Your task to perform on an android device: turn on notifications settings in the gmail app Image 0: 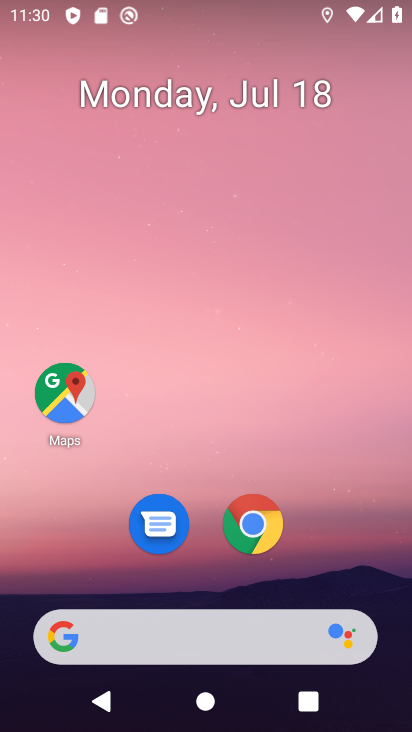
Step 0: drag from (323, 524) to (363, 52)
Your task to perform on an android device: turn on notifications settings in the gmail app Image 1: 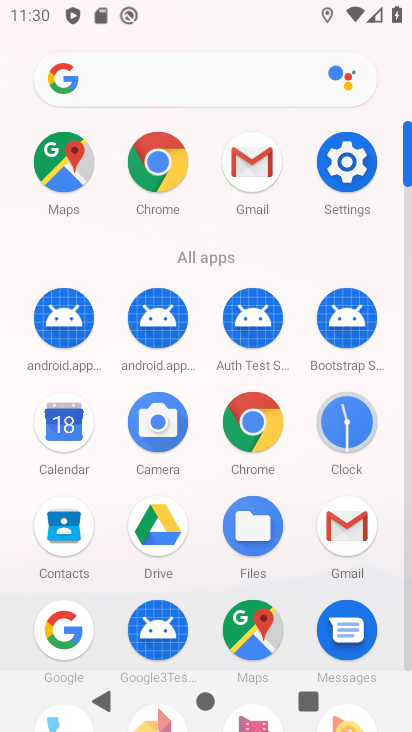
Step 1: click (342, 151)
Your task to perform on an android device: turn on notifications settings in the gmail app Image 2: 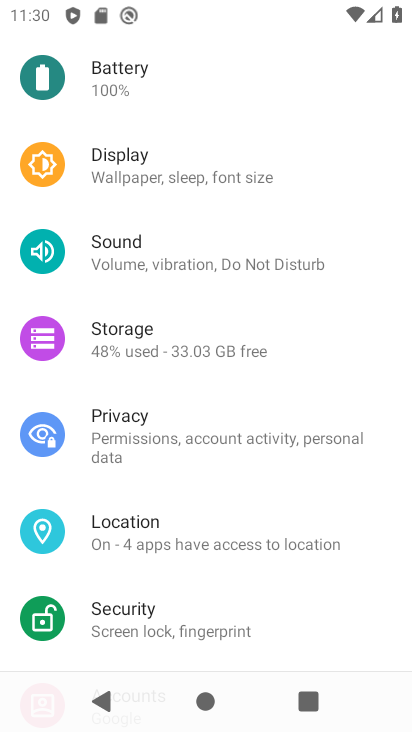
Step 2: drag from (260, 141) to (224, 601)
Your task to perform on an android device: turn on notifications settings in the gmail app Image 3: 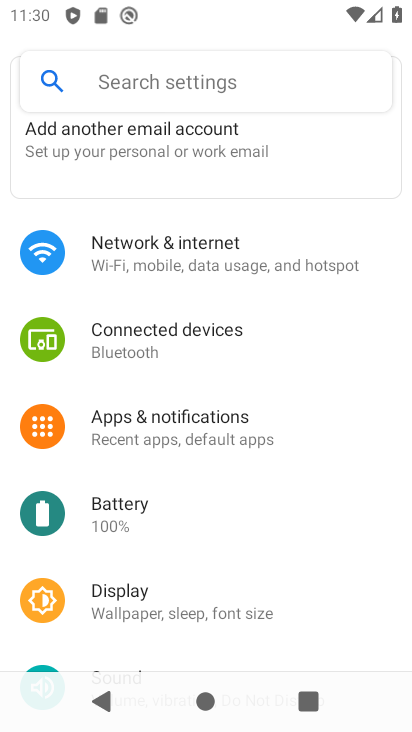
Step 3: click (211, 415)
Your task to perform on an android device: turn on notifications settings in the gmail app Image 4: 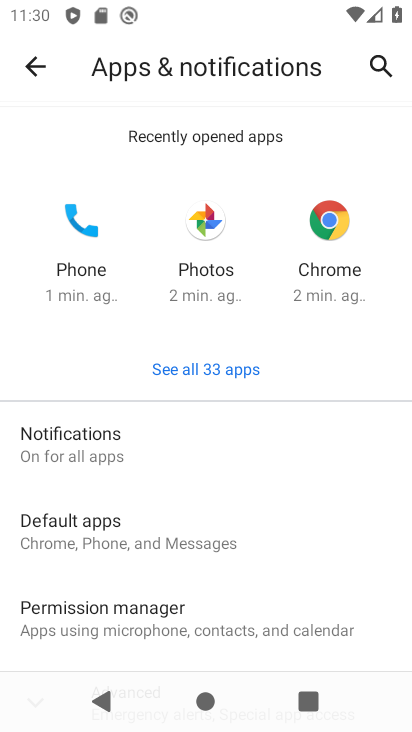
Step 4: click (231, 362)
Your task to perform on an android device: turn on notifications settings in the gmail app Image 5: 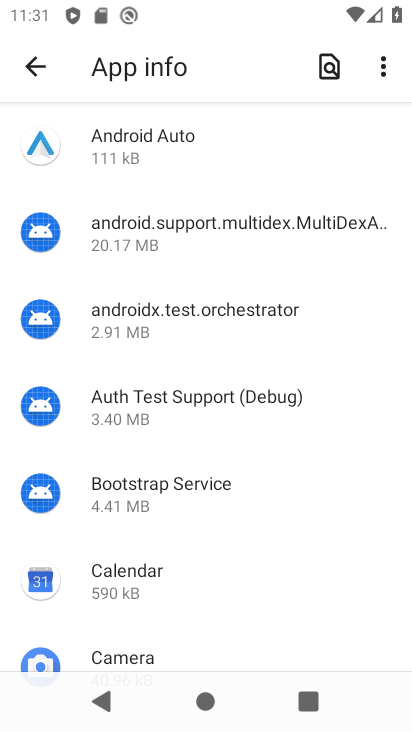
Step 5: drag from (220, 584) to (315, 1)
Your task to perform on an android device: turn on notifications settings in the gmail app Image 6: 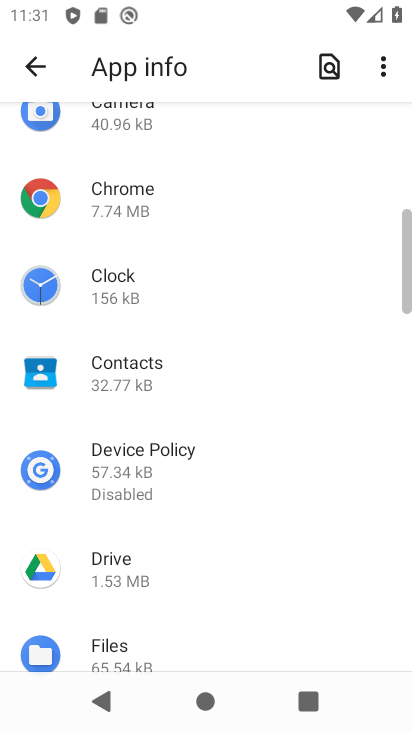
Step 6: drag from (176, 567) to (228, 118)
Your task to perform on an android device: turn on notifications settings in the gmail app Image 7: 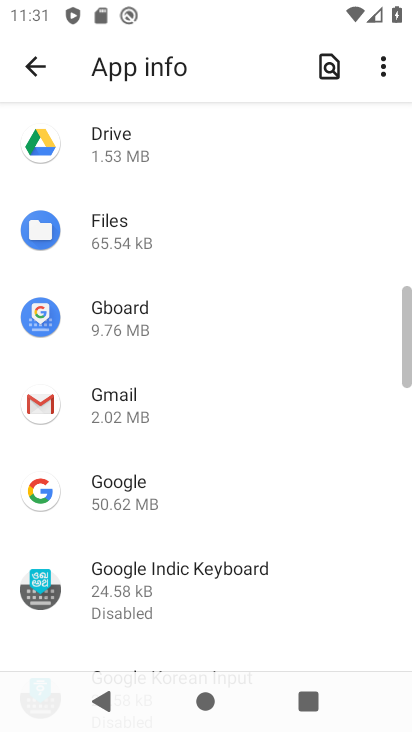
Step 7: click (109, 398)
Your task to perform on an android device: turn on notifications settings in the gmail app Image 8: 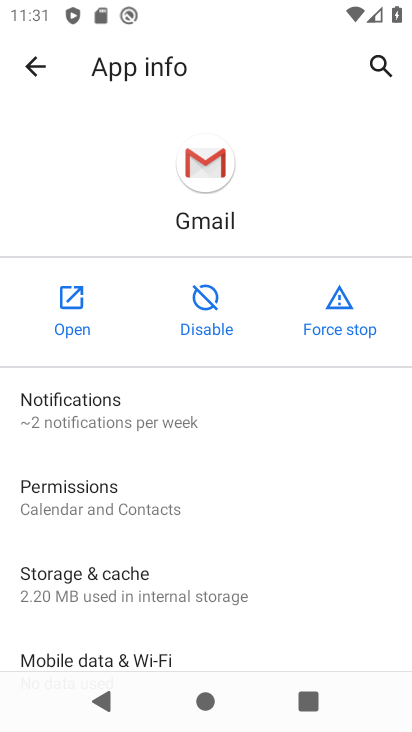
Step 8: click (109, 397)
Your task to perform on an android device: turn on notifications settings in the gmail app Image 9: 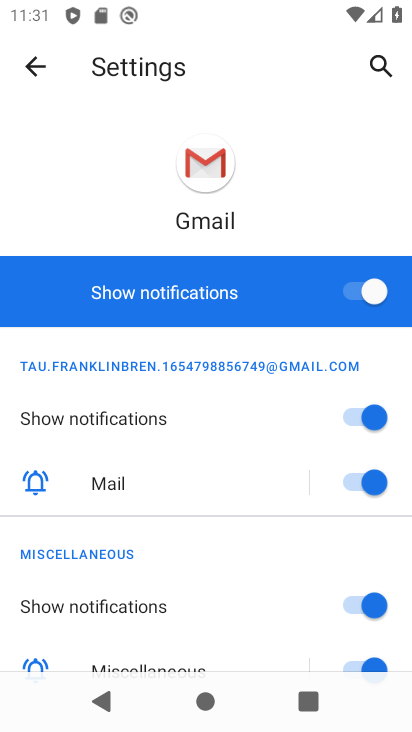
Step 9: task complete